Your task to perform on an android device: see tabs open on other devices in the chrome app Image 0: 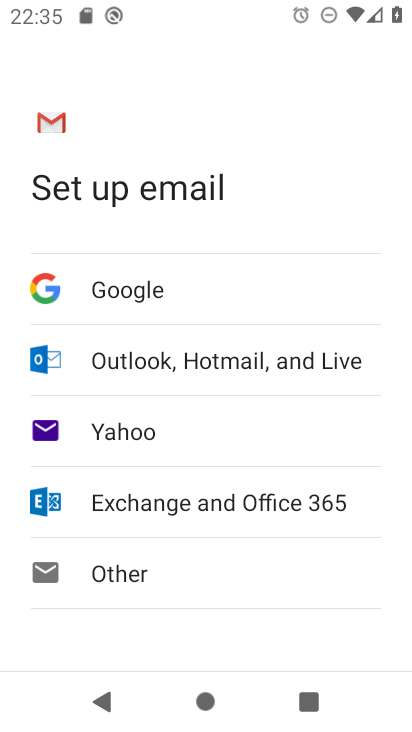
Step 0: press home button
Your task to perform on an android device: see tabs open on other devices in the chrome app Image 1: 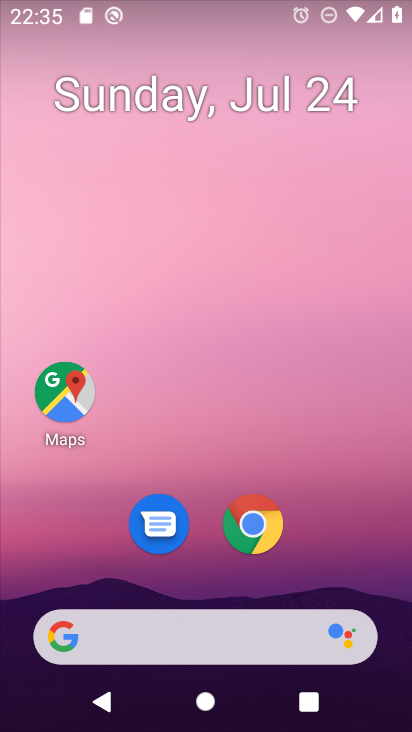
Step 1: click (255, 521)
Your task to perform on an android device: see tabs open on other devices in the chrome app Image 2: 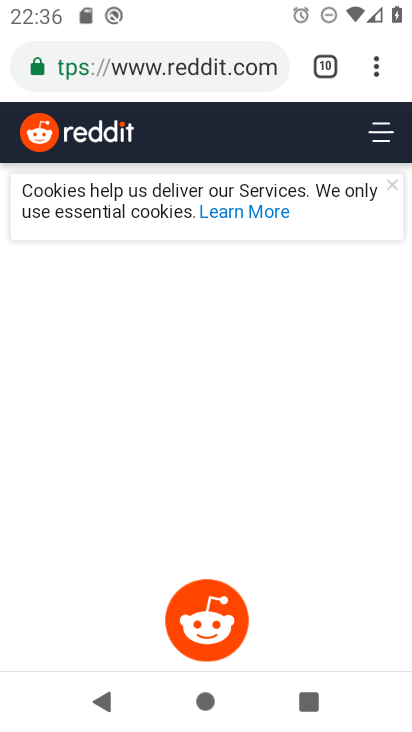
Step 2: task complete